Your task to perform on an android device: Open the web browser Image 0: 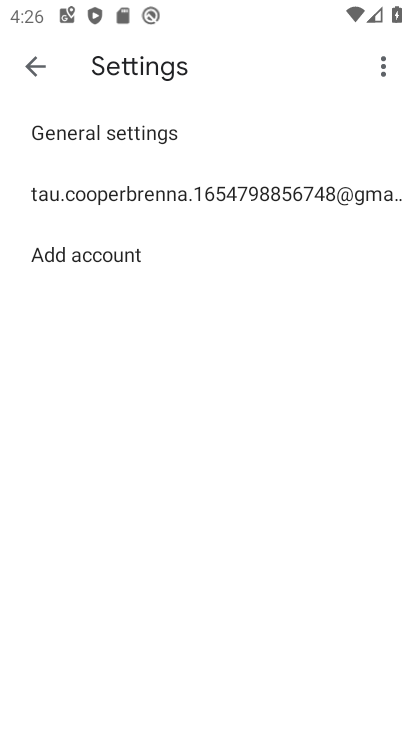
Step 0: press home button
Your task to perform on an android device: Open the web browser Image 1: 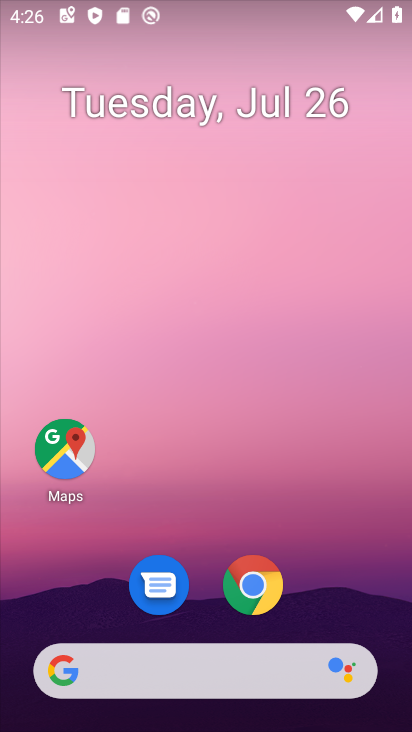
Step 1: click (233, 668)
Your task to perform on an android device: Open the web browser Image 2: 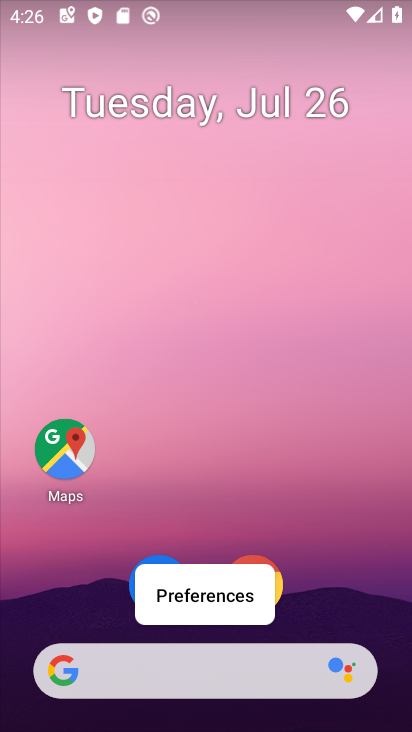
Step 2: click (218, 663)
Your task to perform on an android device: Open the web browser Image 3: 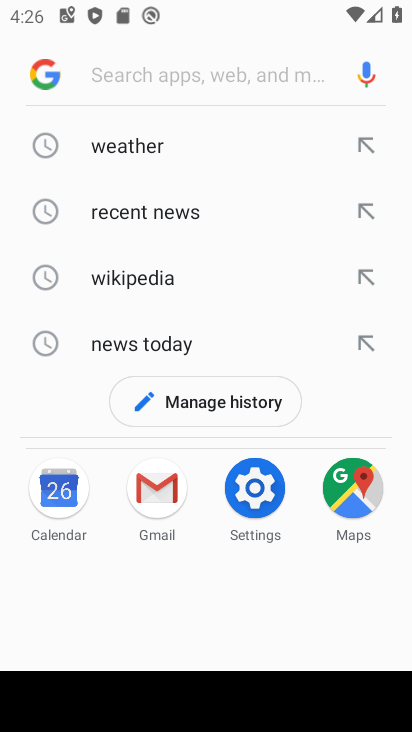
Step 3: task complete